Your task to perform on an android device: Turn on the flashlight Image 0: 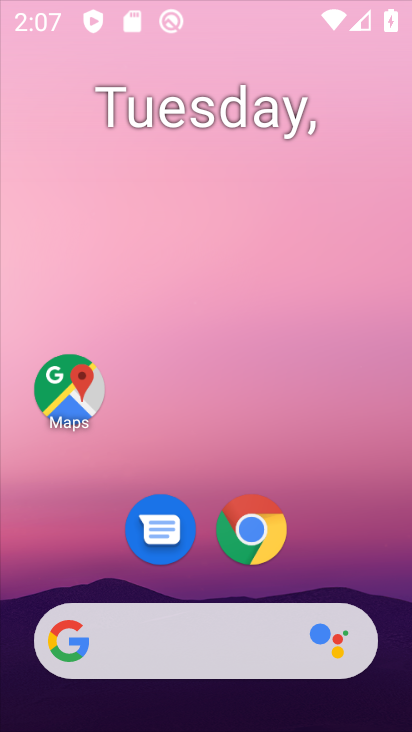
Step 0: click (255, 127)
Your task to perform on an android device: Turn on the flashlight Image 1: 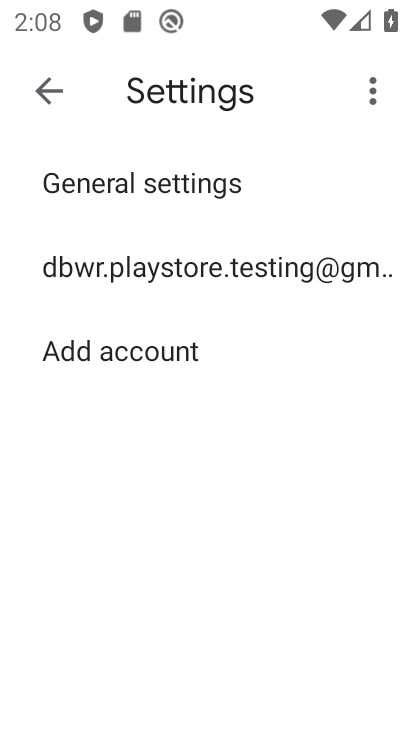
Step 1: press home button
Your task to perform on an android device: Turn on the flashlight Image 2: 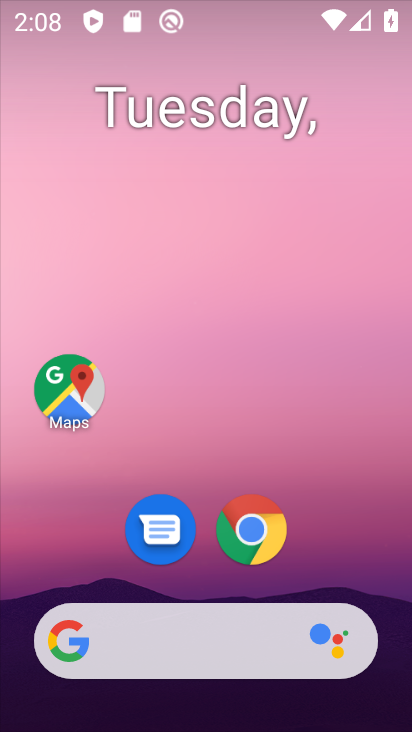
Step 2: drag from (395, 636) to (263, 157)
Your task to perform on an android device: Turn on the flashlight Image 3: 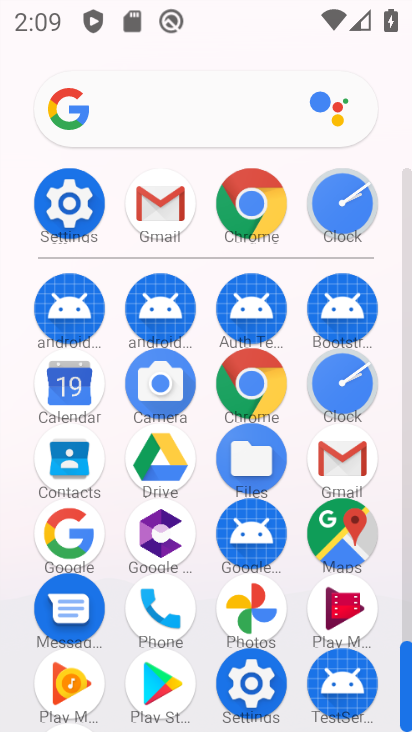
Step 3: click (79, 225)
Your task to perform on an android device: Turn on the flashlight Image 4: 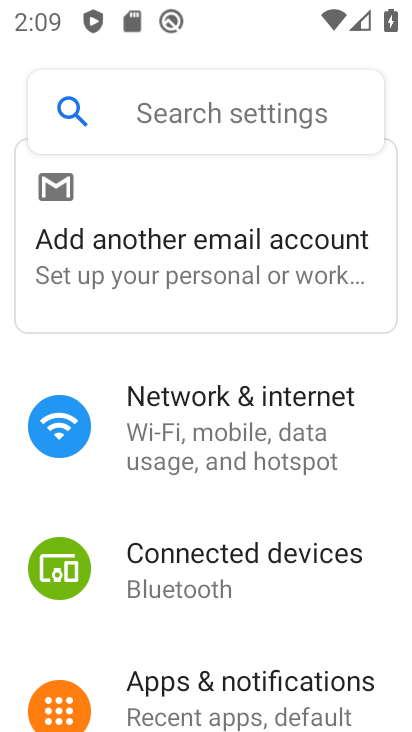
Step 4: task complete